Your task to perform on an android device: open app "DoorDash - Food Delivery" (install if not already installed), go to login, and select forgot password Image 0: 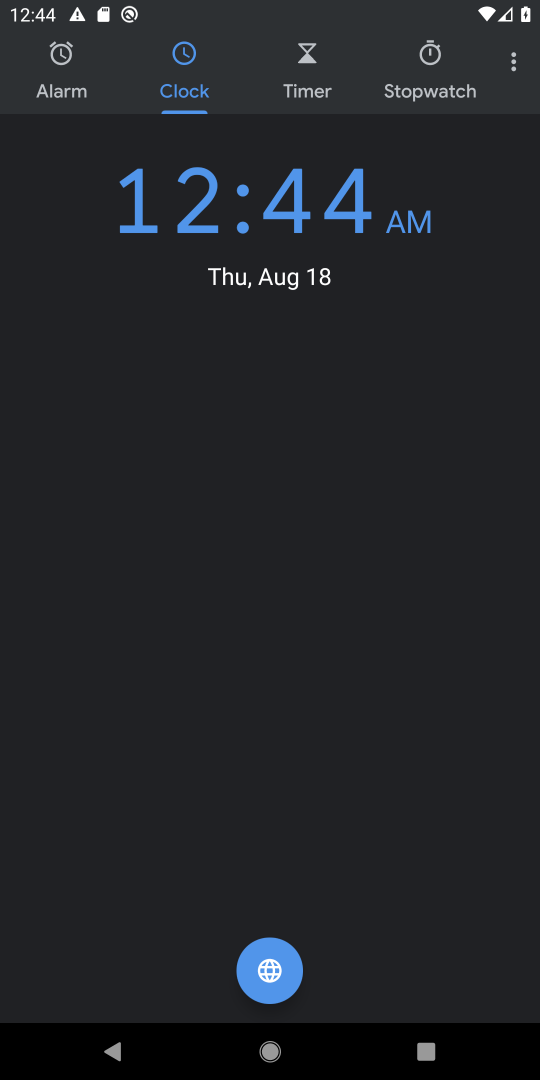
Step 0: press home button
Your task to perform on an android device: open app "DoorDash - Food Delivery" (install if not already installed), go to login, and select forgot password Image 1: 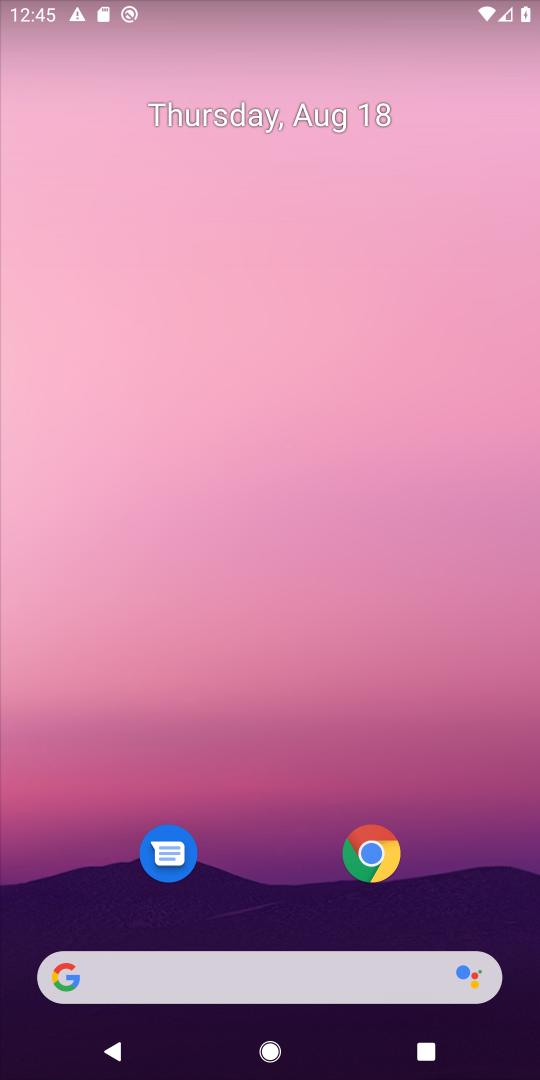
Step 1: drag from (275, 827) to (326, 150)
Your task to perform on an android device: open app "DoorDash - Food Delivery" (install if not already installed), go to login, and select forgot password Image 2: 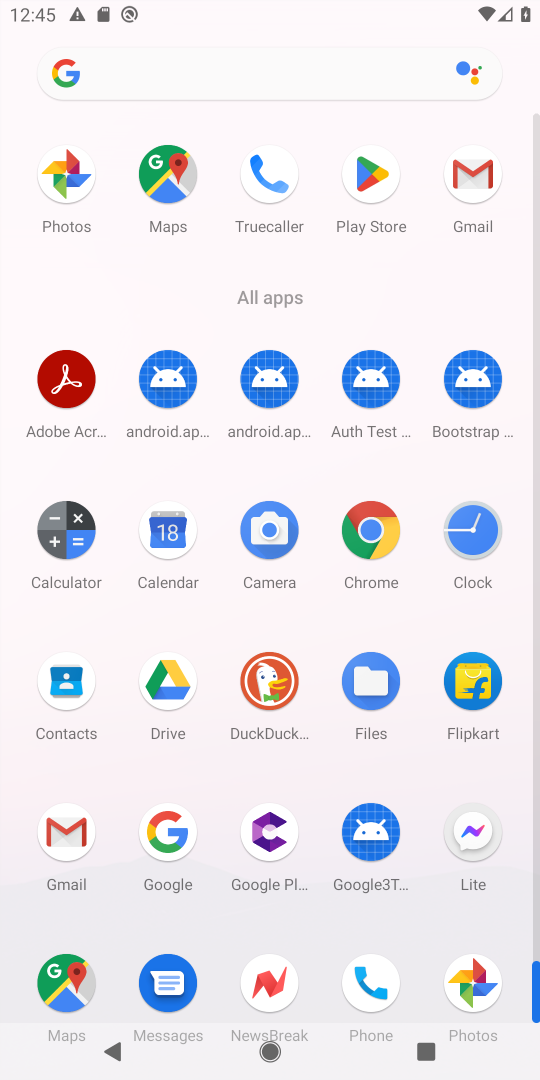
Step 2: click (398, 207)
Your task to perform on an android device: open app "DoorDash - Food Delivery" (install if not already installed), go to login, and select forgot password Image 3: 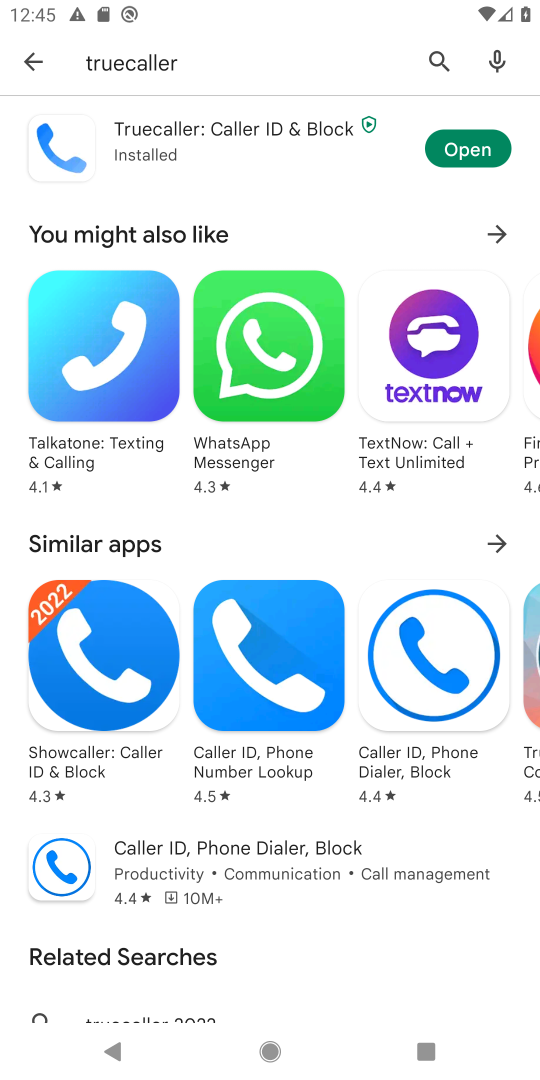
Step 3: click (30, 60)
Your task to perform on an android device: open app "DoorDash - Food Delivery" (install if not already installed), go to login, and select forgot password Image 4: 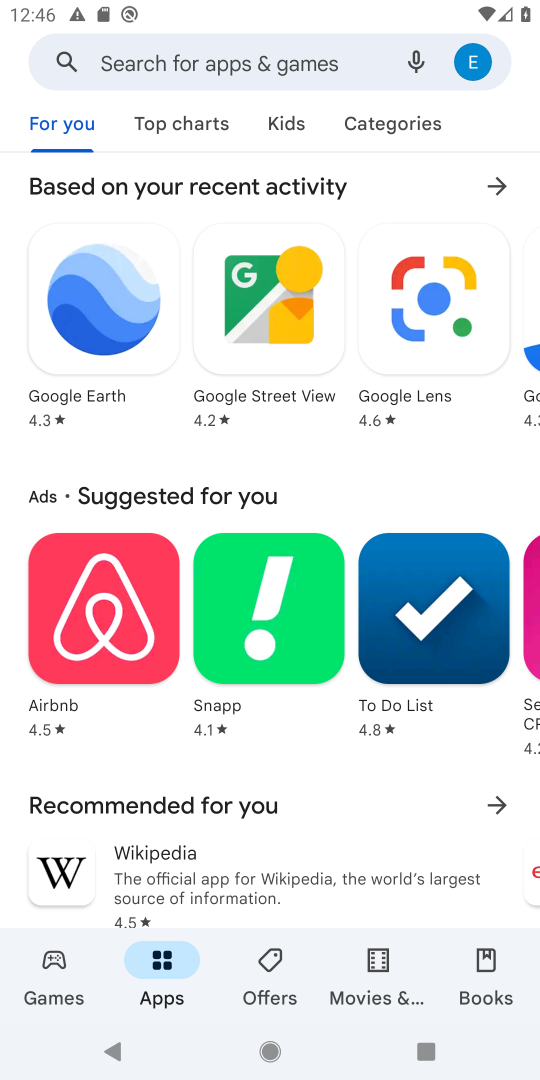
Step 4: click (173, 75)
Your task to perform on an android device: open app "DoorDash - Food Delivery" (install if not already installed), go to login, and select forgot password Image 5: 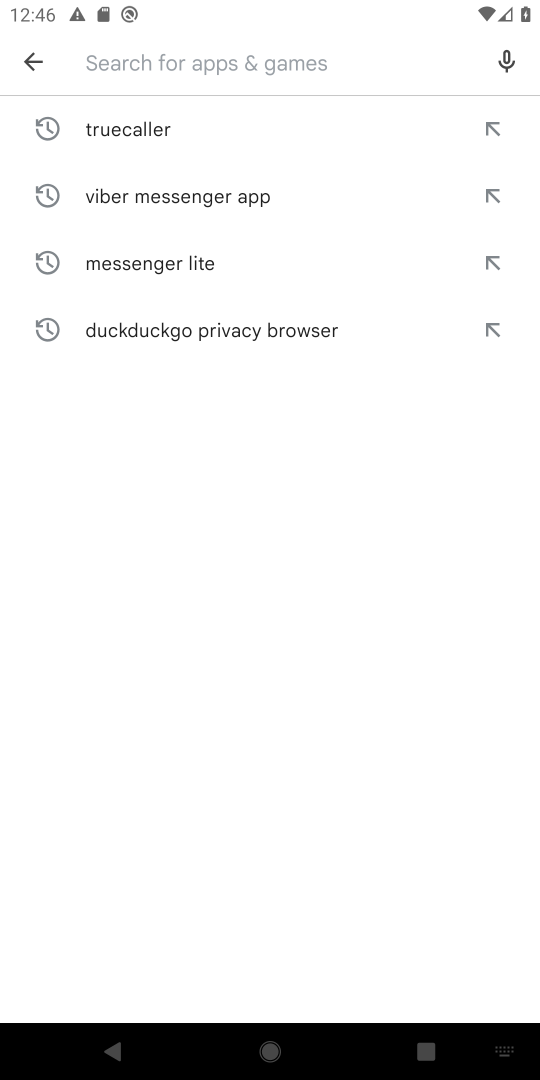
Step 5: type "DoorDash - Food Delivery"
Your task to perform on an android device: open app "DoorDash - Food Delivery" (install if not already installed), go to login, and select forgot password Image 6: 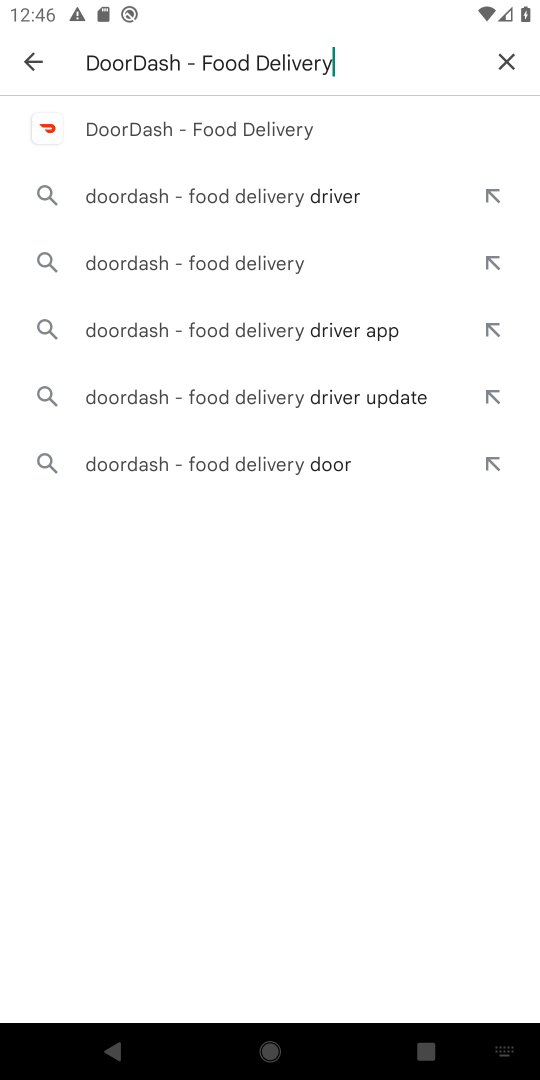
Step 6: click (284, 132)
Your task to perform on an android device: open app "DoorDash - Food Delivery" (install if not already installed), go to login, and select forgot password Image 7: 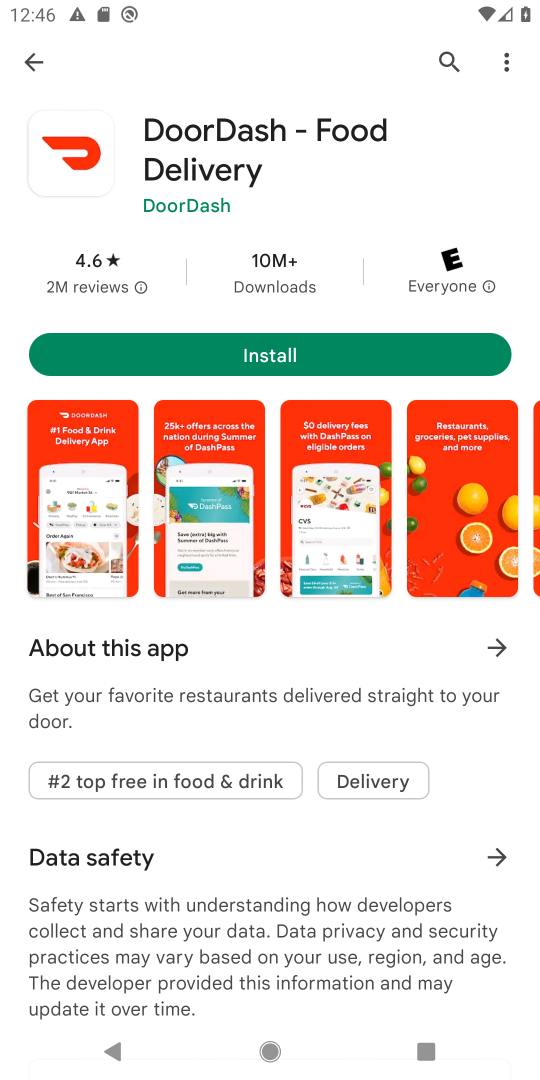
Step 7: click (277, 366)
Your task to perform on an android device: open app "DoorDash - Food Delivery" (install if not already installed), go to login, and select forgot password Image 8: 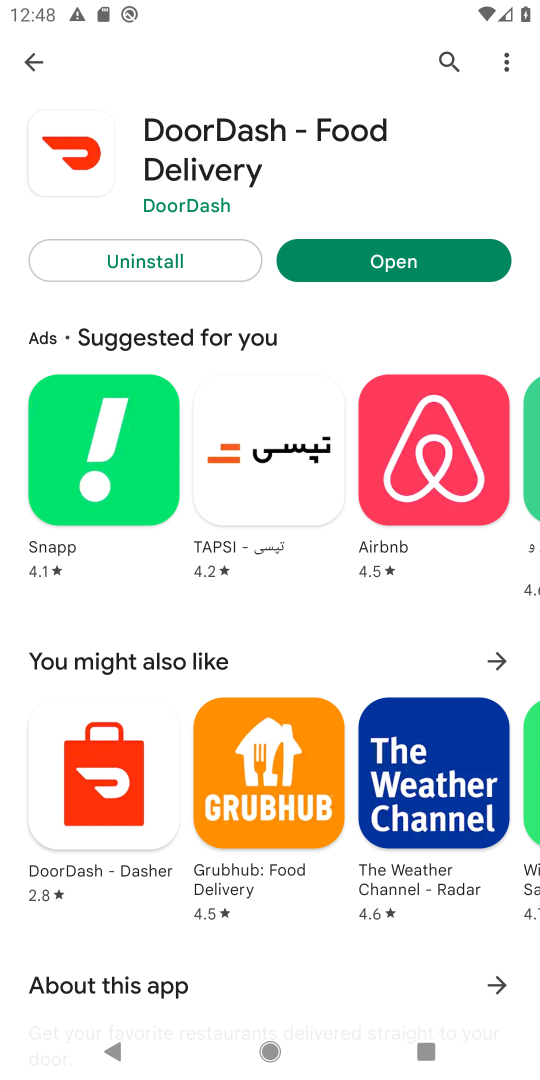
Step 8: click (403, 259)
Your task to perform on an android device: open app "DoorDash - Food Delivery" (install if not already installed), go to login, and select forgot password Image 9: 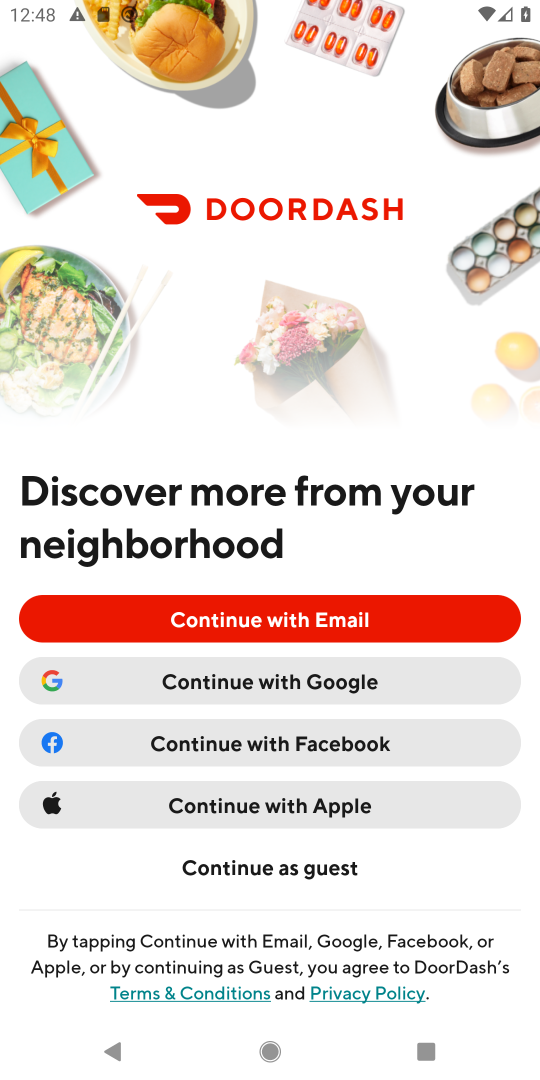
Step 9: task complete